Your task to perform on an android device: Go to Amazon Image 0: 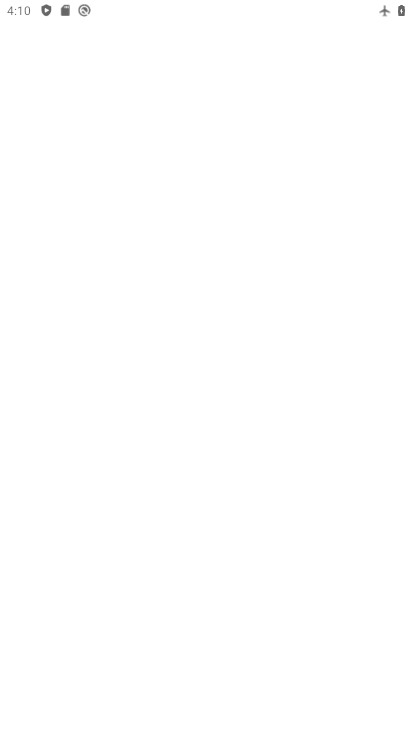
Step 0: drag from (228, 658) to (126, 64)
Your task to perform on an android device: Go to Amazon Image 1: 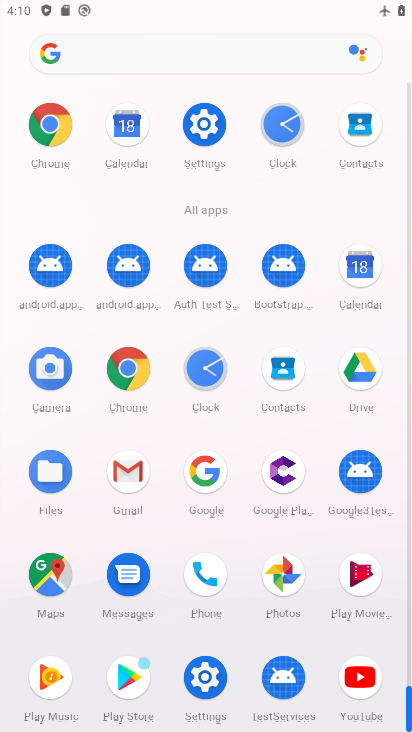
Step 1: click (57, 116)
Your task to perform on an android device: Go to Amazon Image 2: 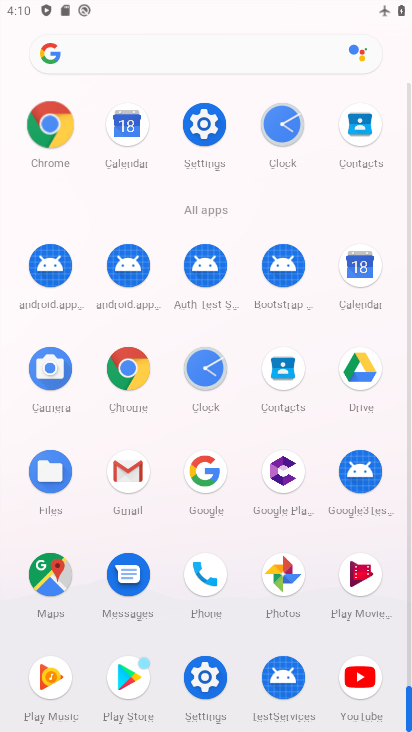
Step 2: click (57, 116)
Your task to perform on an android device: Go to Amazon Image 3: 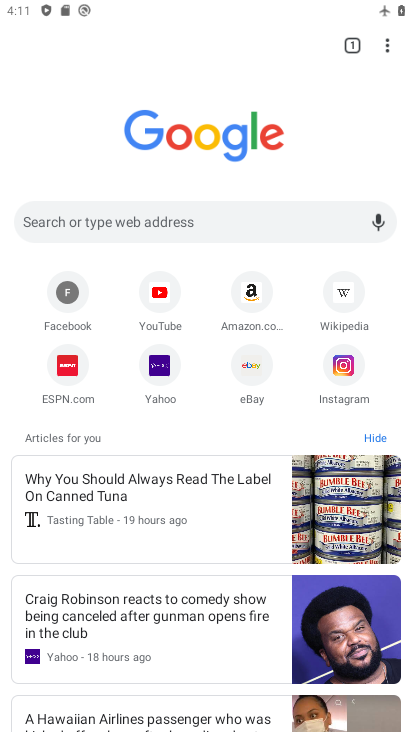
Step 3: click (241, 297)
Your task to perform on an android device: Go to Amazon Image 4: 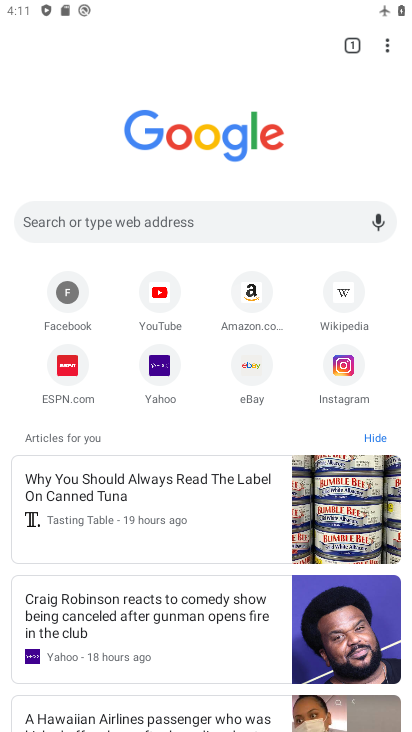
Step 4: click (239, 297)
Your task to perform on an android device: Go to Amazon Image 5: 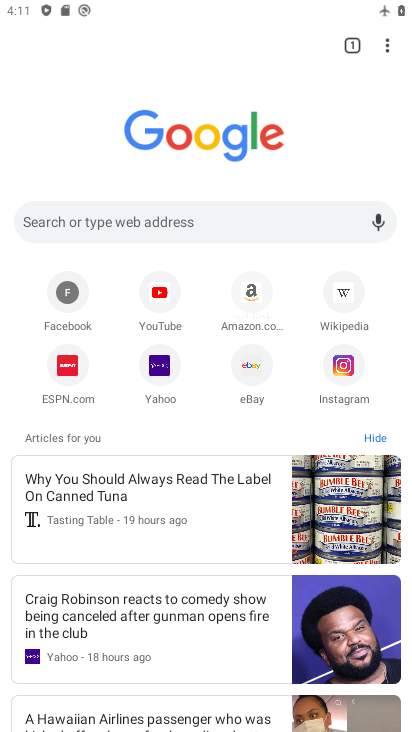
Step 5: click (225, 313)
Your task to perform on an android device: Go to Amazon Image 6: 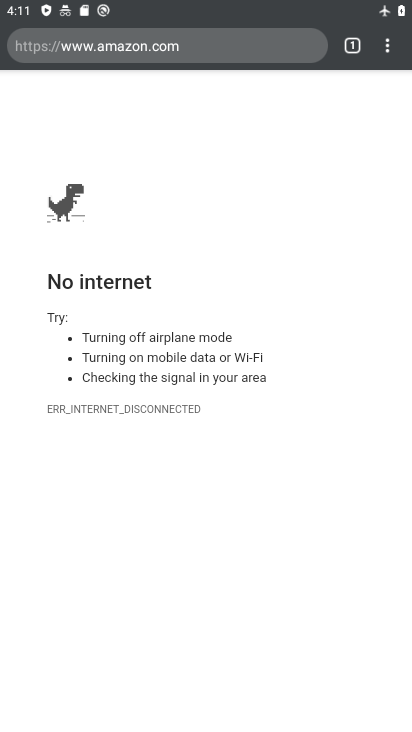
Step 6: task complete